Your task to perform on an android device: create a new album in the google photos Image 0: 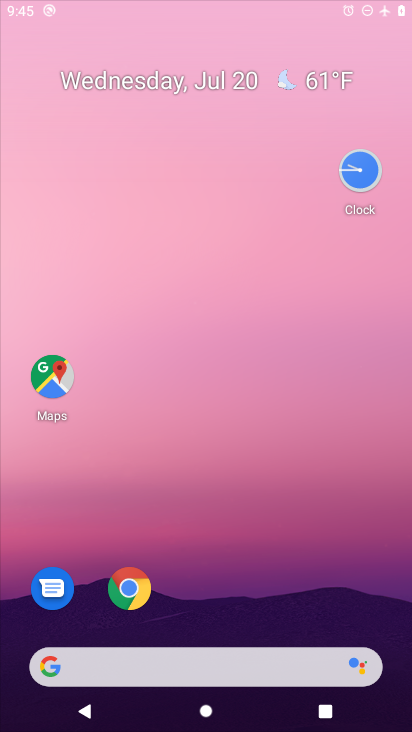
Step 0: drag from (128, 389) to (169, 253)
Your task to perform on an android device: create a new album in the google photos Image 1: 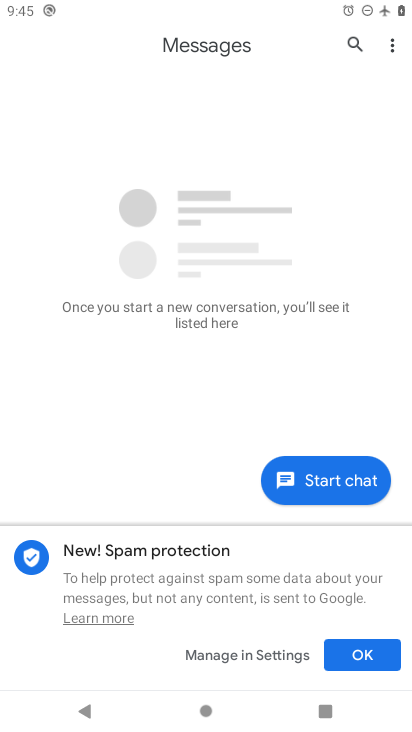
Step 1: press home button
Your task to perform on an android device: create a new album in the google photos Image 2: 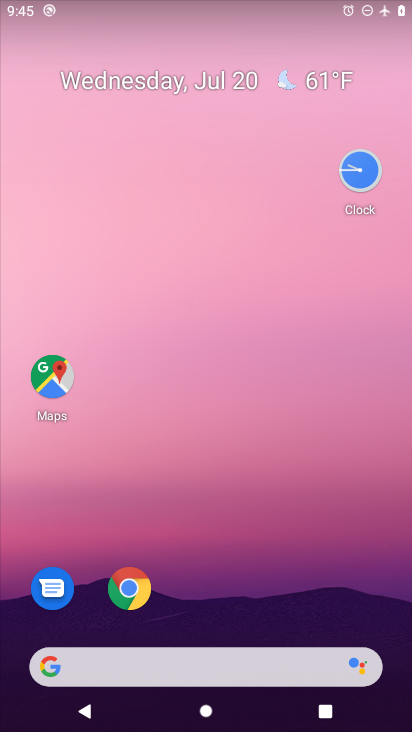
Step 2: drag from (35, 685) to (215, 243)
Your task to perform on an android device: create a new album in the google photos Image 3: 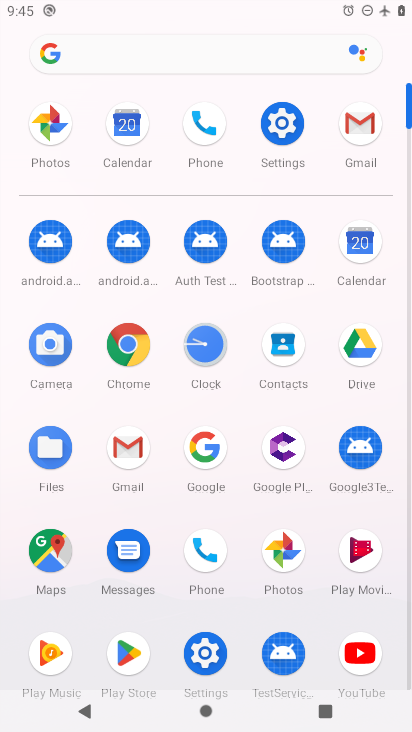
Step 3: click (281, 569)
Your task to perform on an android device: create a new album in the google photos Image 4: 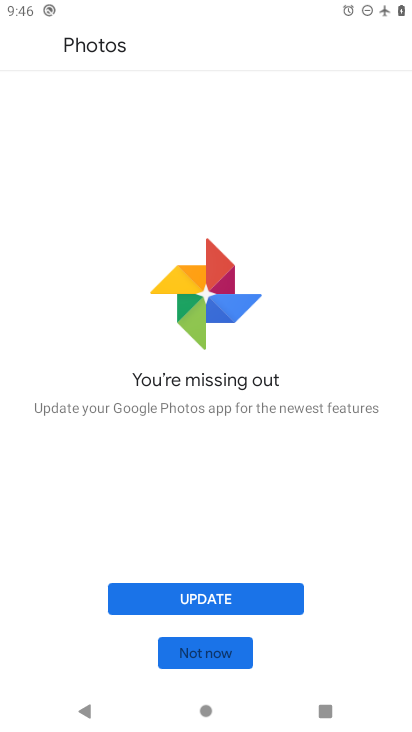
Step 4: click (215, 602)
Your task to perform on an android device: create a new album in the google photos Image 5: 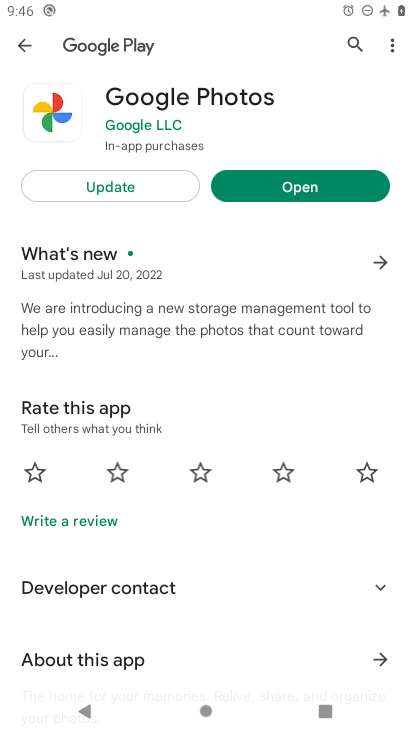
Step 5: click (277, 175)
Your task to perform on an android device: create a new album in the google photos Image 6: 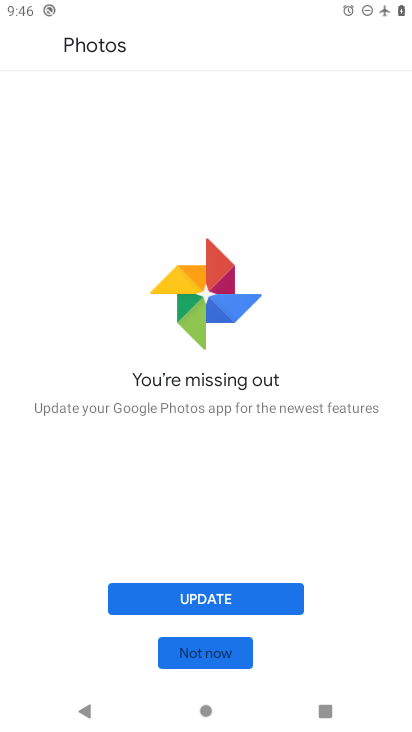
Step 6: task complete